Your task to perform on an android device: What is the news today? Image 0: 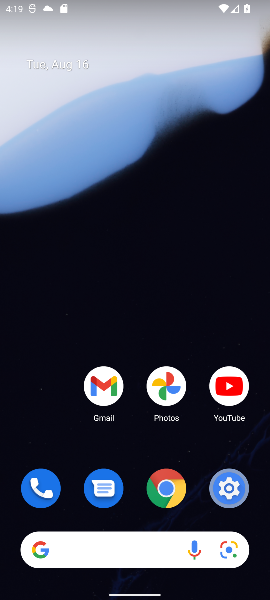
Step 0: drag from (168, 597) to (2, 581)
Your task to perform on an android device: What is the news today? Image 1: 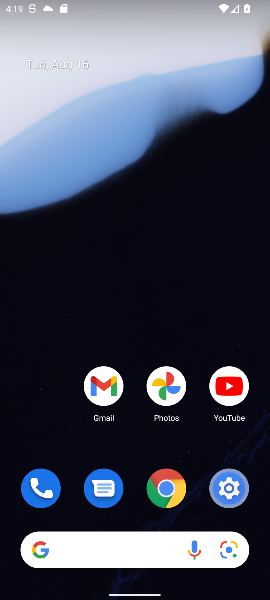
Step 1: click (125, 549)
Your task to perform on an android device: What is the news today? Image 2: 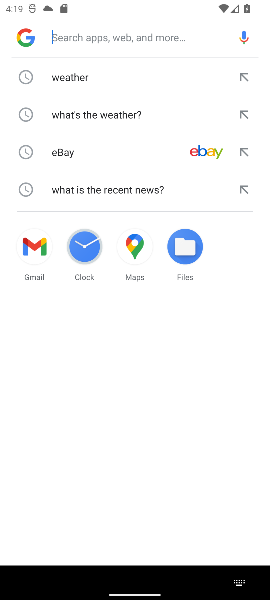
Step 2: type " What is the news today?"
Your task to perform on an android device: What is the news today? Image 3: 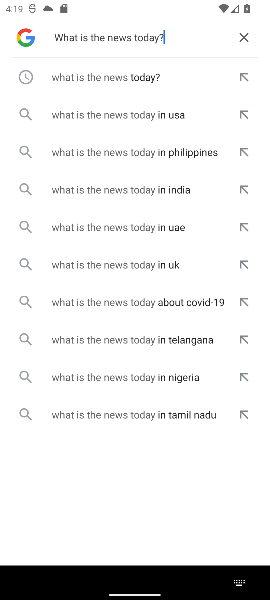
Step 3: press enter
Your task to perform on an android device: What is the news today? Image 4: 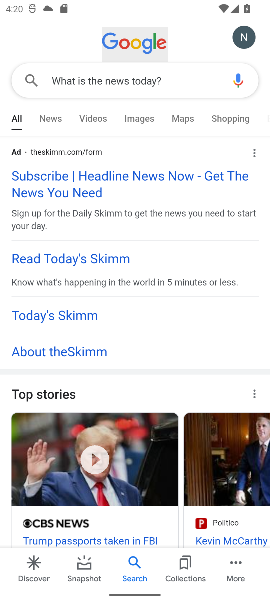
Step 4: task complete